Your task to perform on an android device: find which apps use the phone's location Image 0: 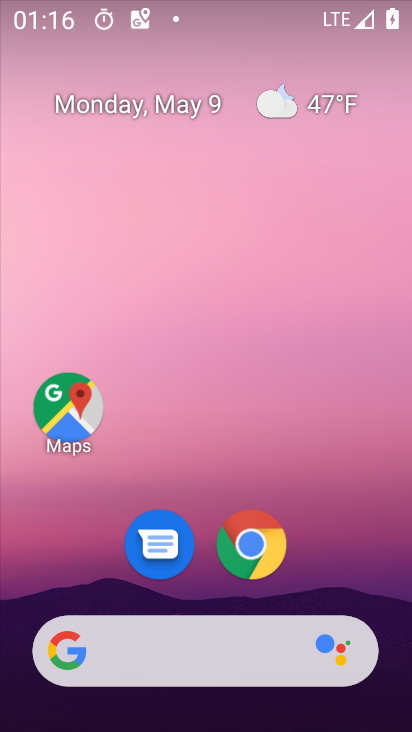
Step 0: drag from (281, 217) to (286, 41)
Your task to perform on an android device: find which apps use the phone's location Image 1: 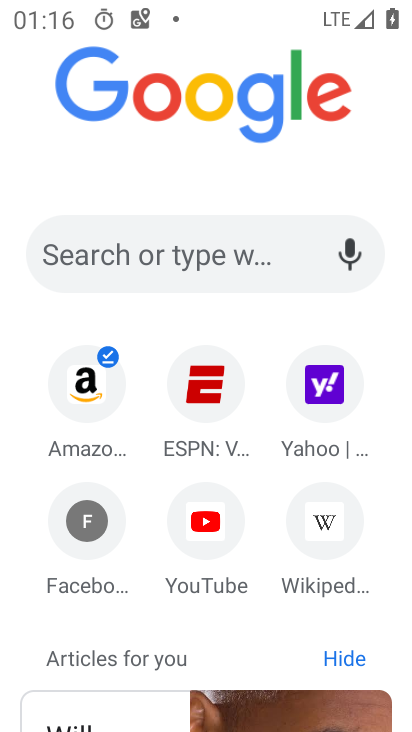
Step 1: press home button
Your task to perform on an android device: find which apps use the phone's location Image 2: 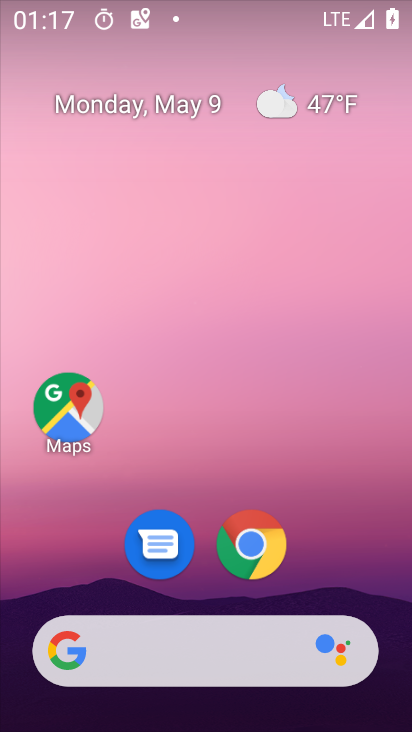
Step 2: drag from (335, 647) to (258, 6)
Your task to perform on an android device: find which apps use the phone's location Image 3: 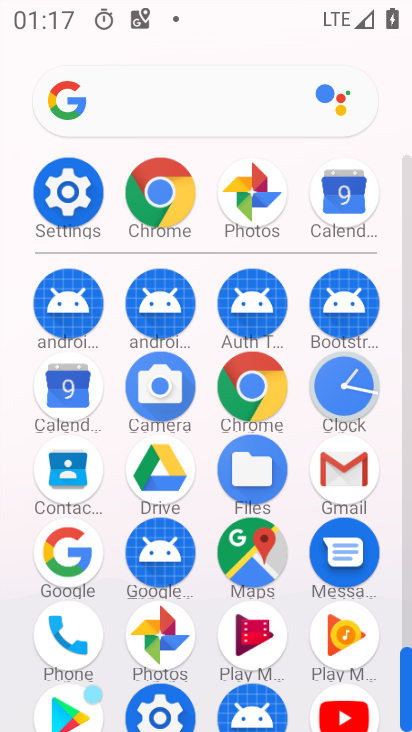
Step 3: click (56, 186)
Your task to perform on an android device: find which apps use the phone's location Image 4: 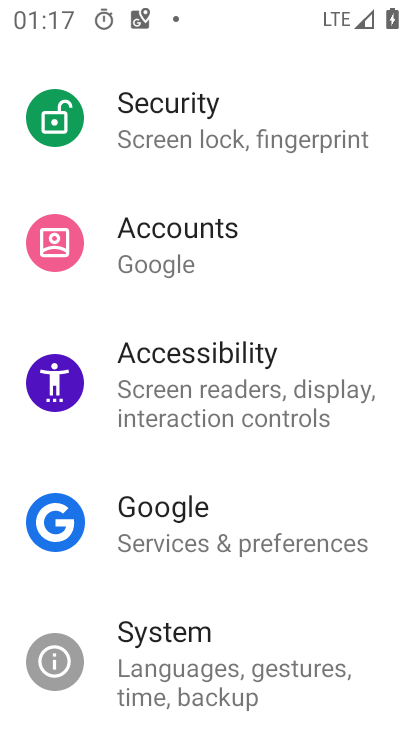
Step 4: drag from (199, 178) to (258, 724)
Your task to perform on an android device: find which apps use the phone's location Image 5: 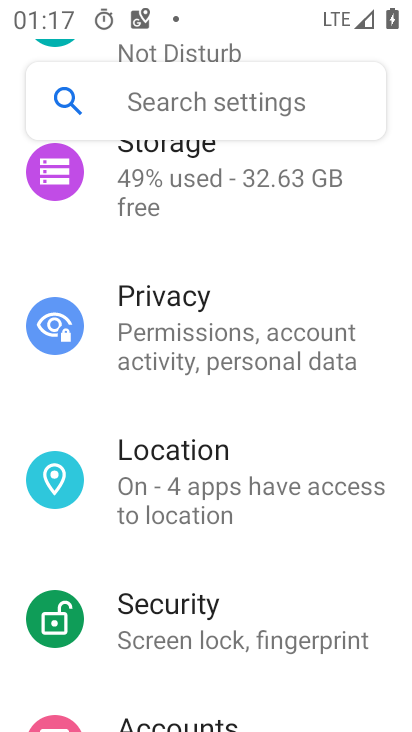
Step 5: click (299, 478)
Your task to perform on an android device: find which apps use the phone's location Image 6: 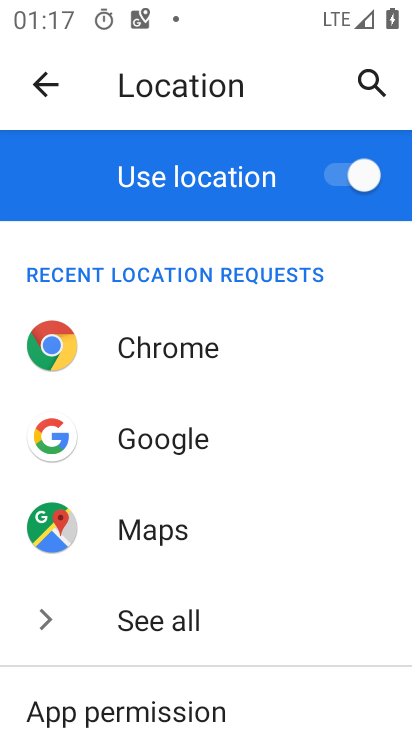
Step 6: drag from (239, 631) to (245, 179)
Your task to perform on an android device: find which apps use the phone's location Image 7: 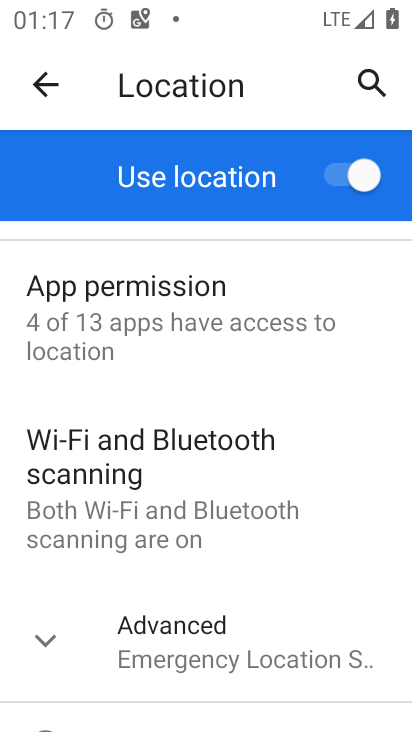
Step 7: click (159, 289)
Your task to perform on an android device: find which apps use the phone's location Image 8: 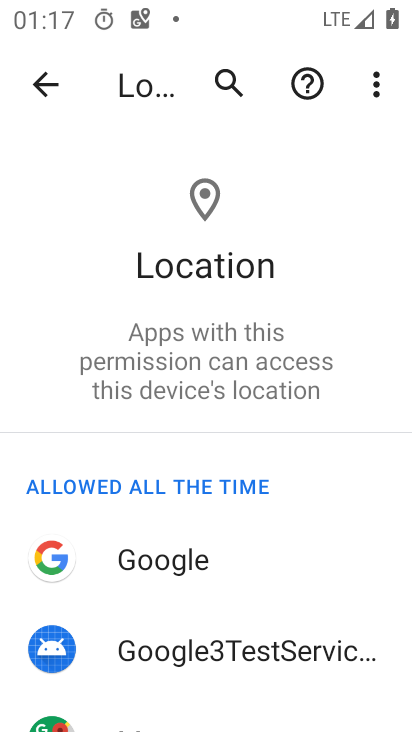
Step 8: task complete